Your task to perform on an android device: toggle pop-ups in chrome Image 0: 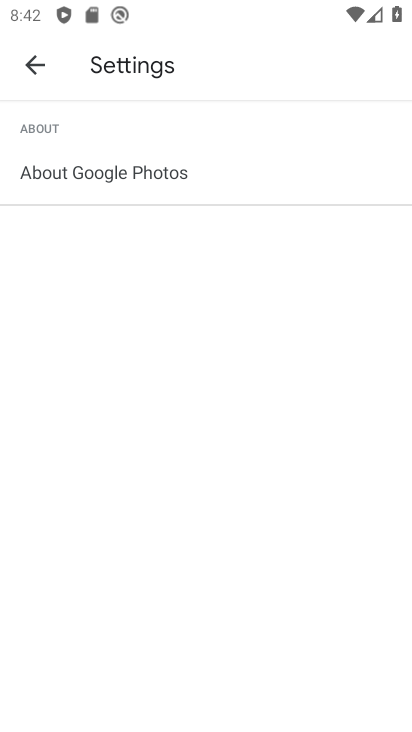
Step 0: press home button
Your task to perform on an android device: toggle pop-ups in chrome Image 1: 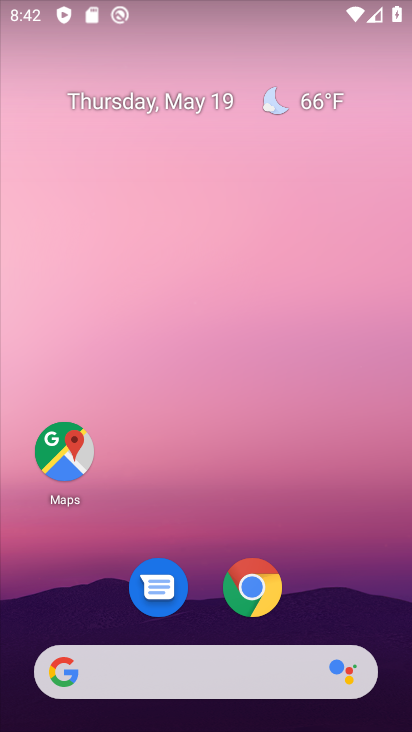
Step 1: drag from (248, 622) to (252, 209)
Your task to perform on an android device: toggle pop-ups in chrome Image 2: 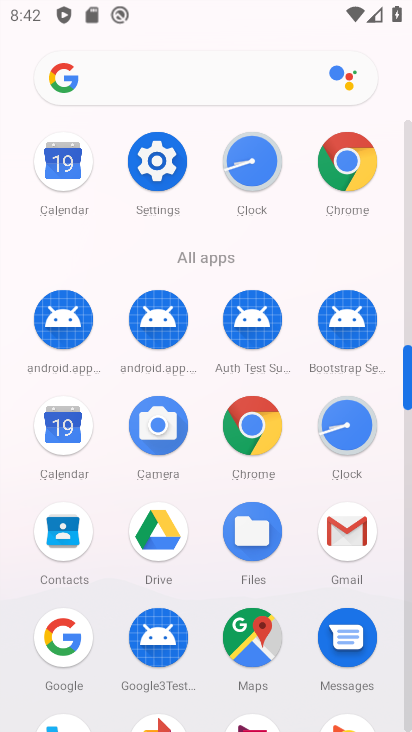
Step 2: click (347, 169)
Your task to perform on an android device: toggle pop-ups in chrome Image 3: 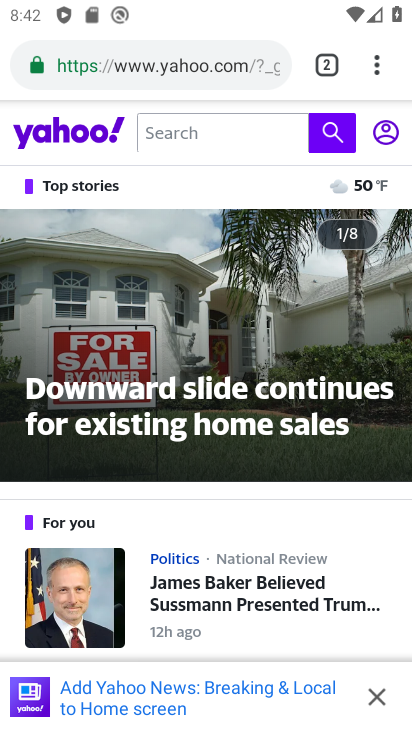
Step 3: click (370, 76)
Your task to perform on an android device: toggle pop-ups in chrome Image 4: 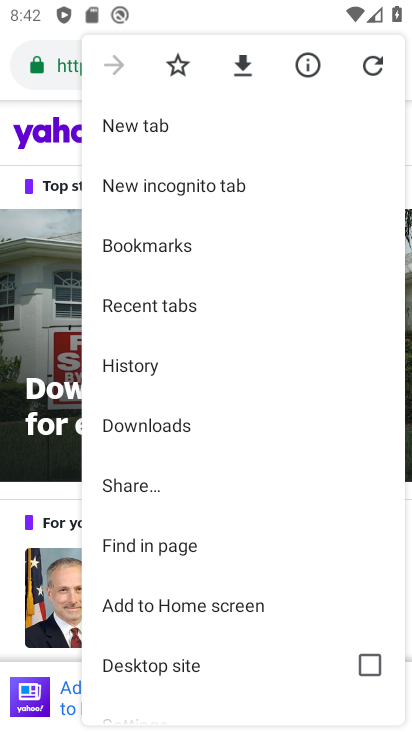
Step 4: drag from (128, 612) to (185, 337)
Your task to perform on an android device: toggle pop-ups in chrome Image 5: 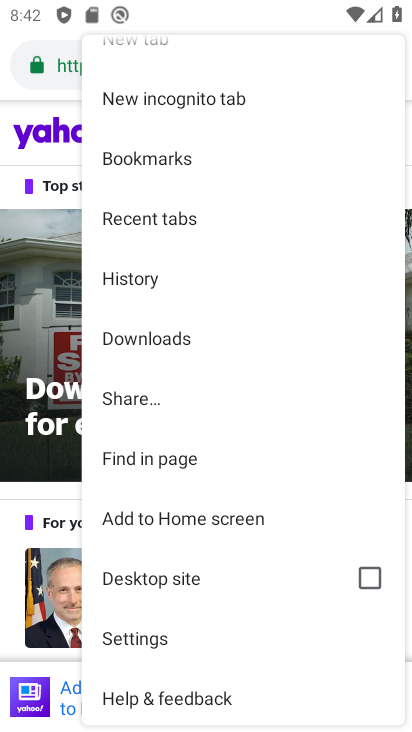
Step 5: click (157, 629)
Your task to perform on an android device: toggle pop-ups in chrome Image 6: 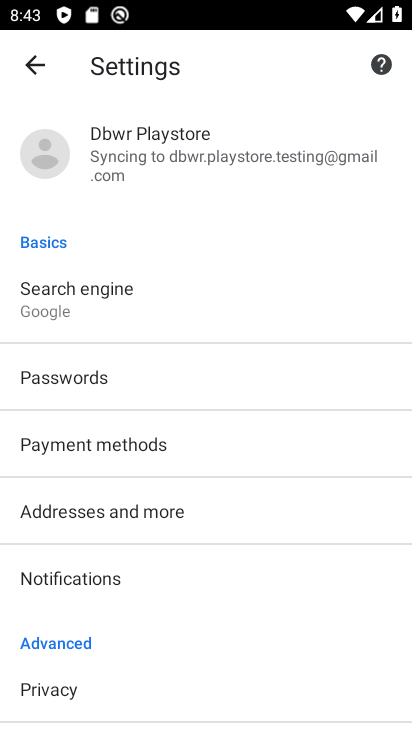
Step 6: drag from (145, 646) to (228, 412)
Your task to perform on an android device: toggle pop-ups in chrome Image 7: 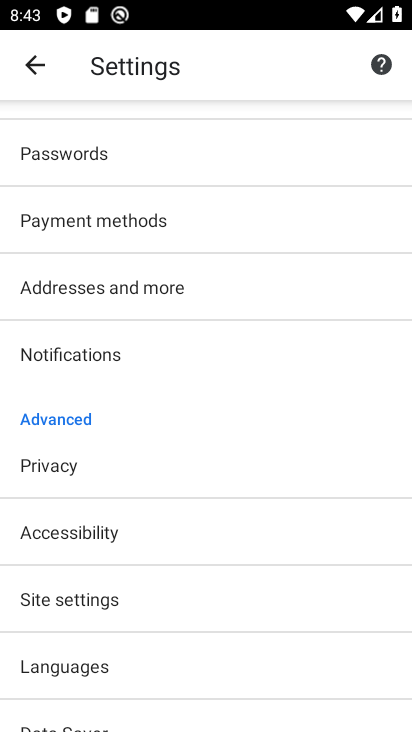
Step 7: click (130, 591)
Your task to perform on an android device: toggle pop-ups in chrome Image 8: 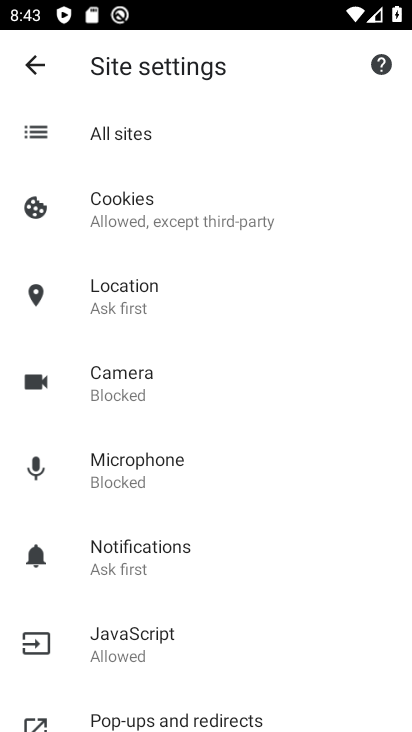
Step 8: click (176, 714)
Your task to perform on an android device: toggle pop-ups in chrome Image 9: 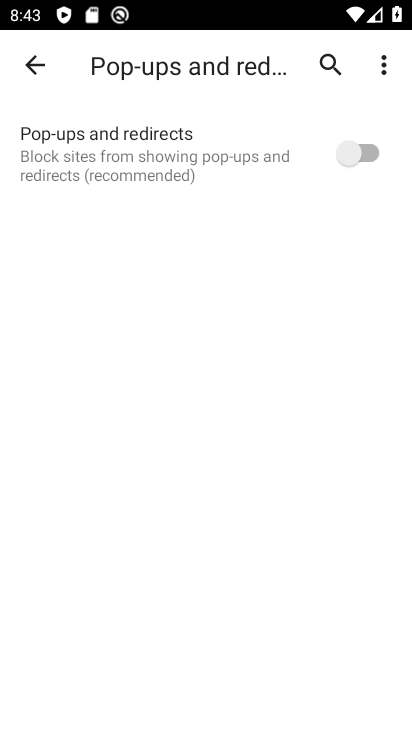
Step 9: task complete